Your task to perform on an android device: Is it going to rain this weekend? Image 0: 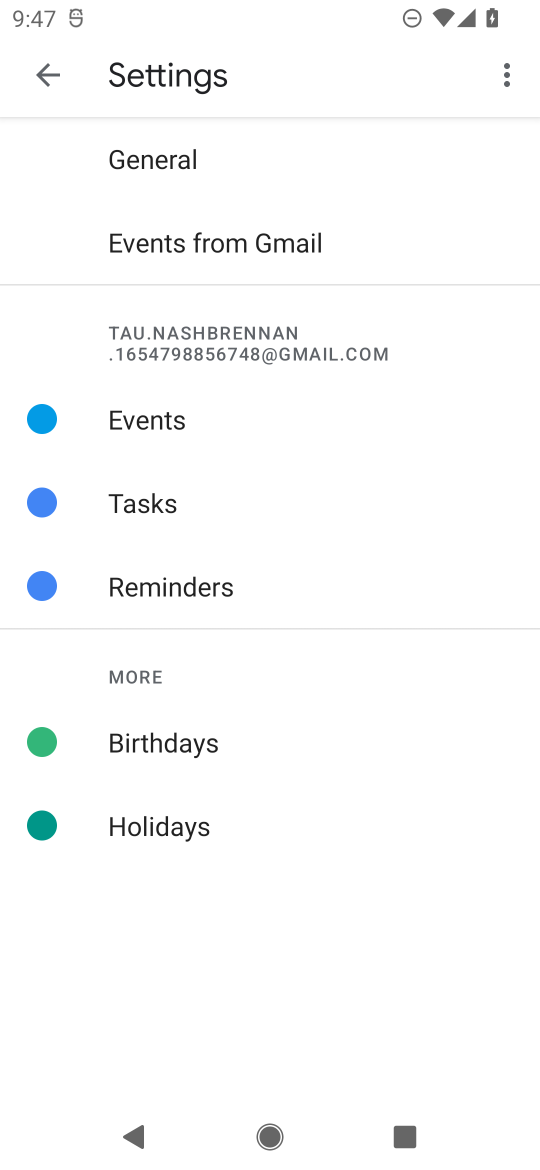
Step 0: press home button
Your task to perform on an android device: Is it going to rain this weekend? Image 1: 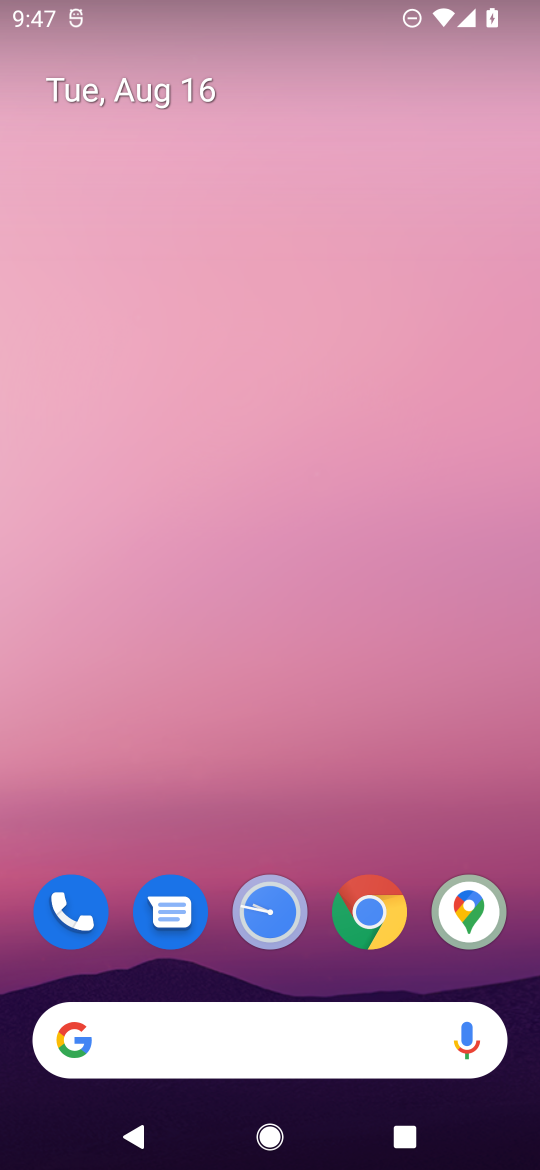
Step 1: click (306, 1041)
Your task to perform on an android device: Is it going to rain this weekend? Image 2: 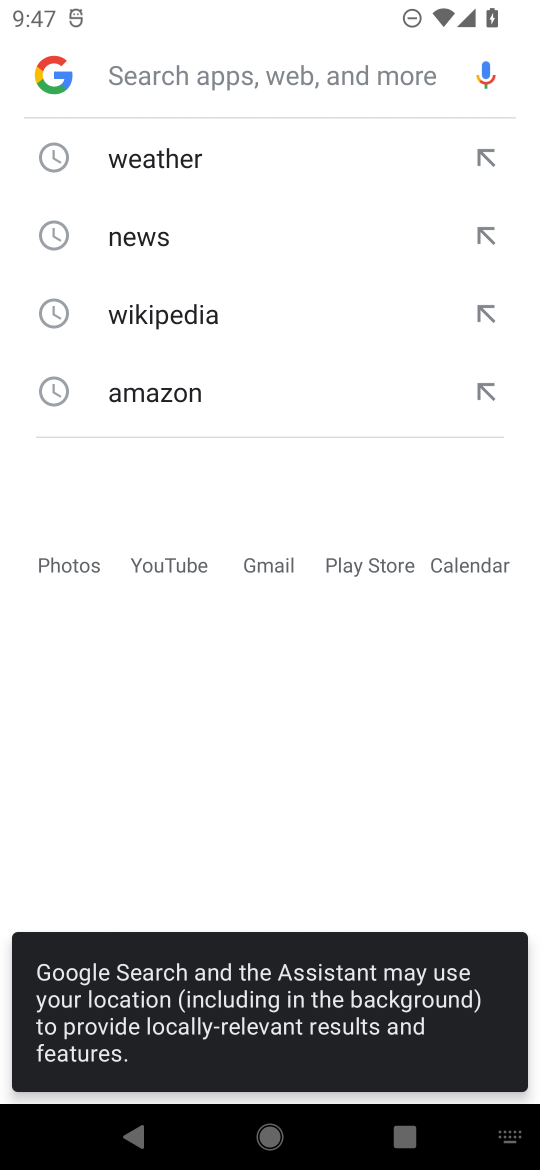
Step 2: click (80, 172)
Your task to perform on an android device: Is it going to rain this weekend? Image 3: 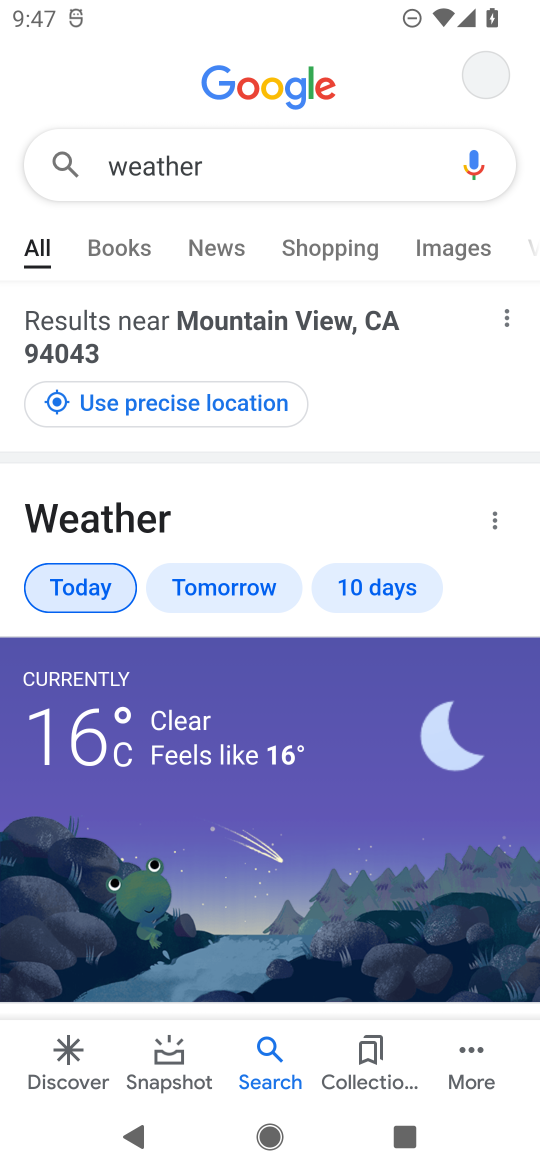
Step 3: click (361, 587)
Your task to perform on an android device: Is it going to rain this weekend? Image 4: 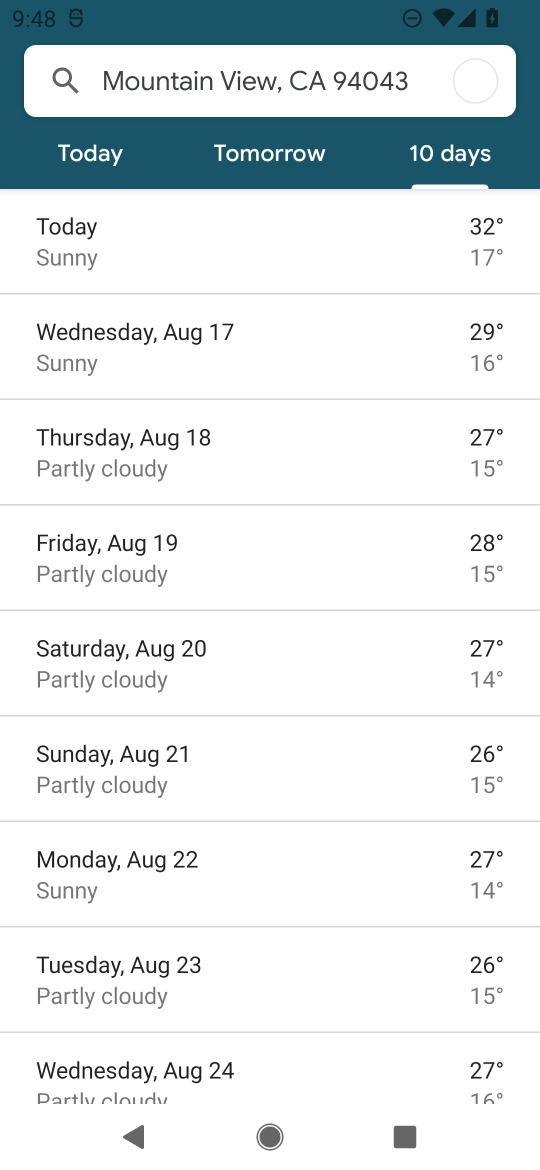
Step 4: task complete